Your task to perform on an android device: turn on priority inbox in the gmail app Image 0: 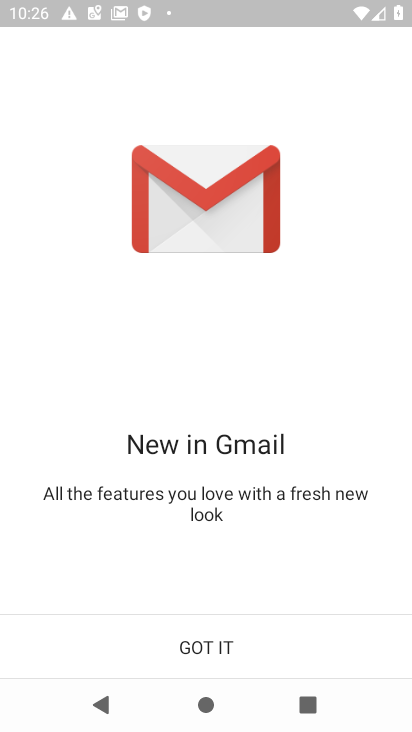
Step 0: press home button
Your task to perform on an android device: turn on priority inbox in the gmail app Image 1: 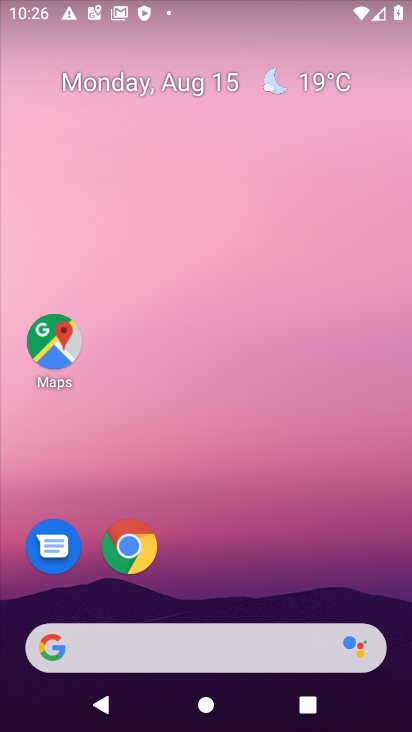
Step 1: drag from (227, 564) to (223, 45)
Your task to perform on an android device: turn on priority inbox in the gmail app Image 2: 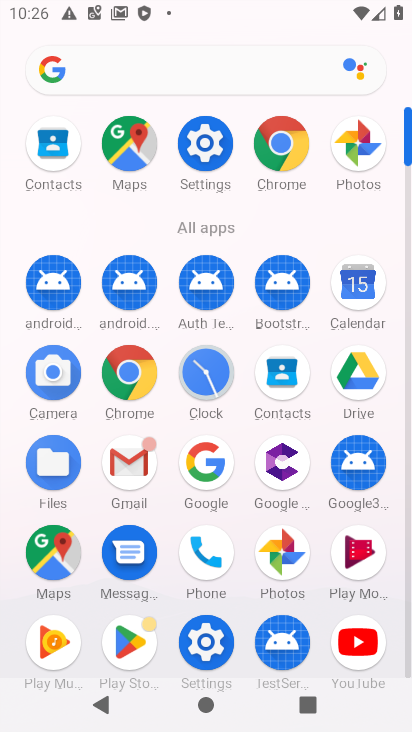
Step 2: click (124, 455)
Your task to perform on an android device: turn on priority inbox in the gmail app Image 3: 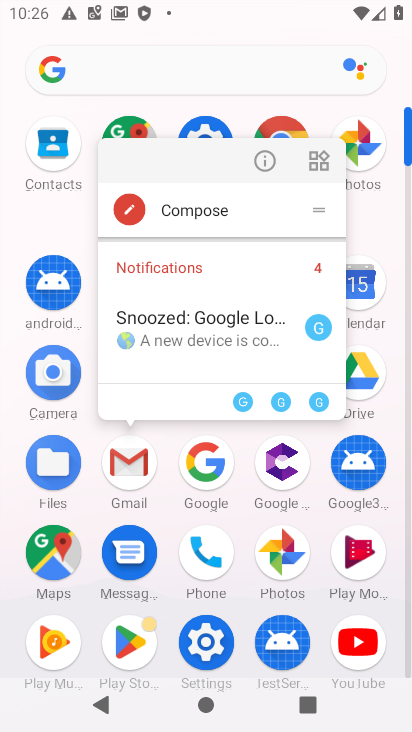
Step 3: click (139, 459)
Your task to perform on an android device: turn on priority inbox in the gmail app Image 4: 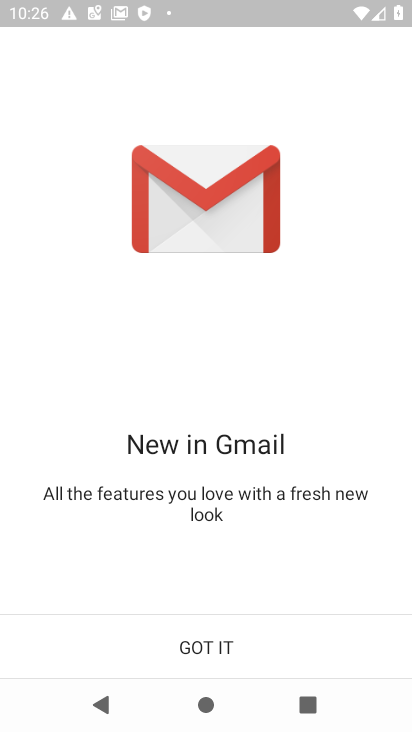
Step 4: click (197, 634)
Your task to perform on an android device: turn on priority inbox in the gmail app Image 5: 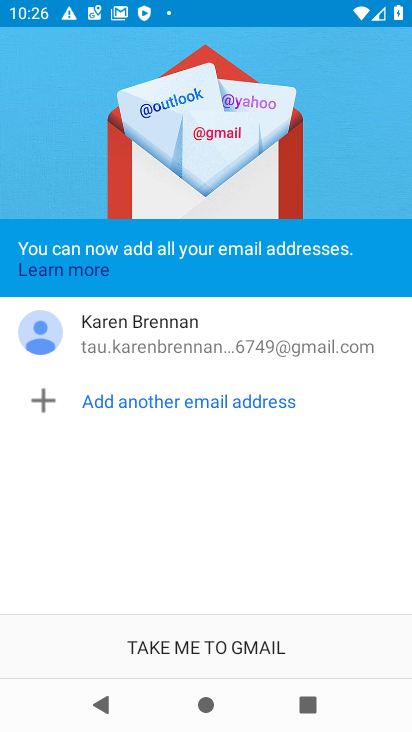
Step 5: click (228, 650)
Your task to perform on an android device: turn on priority inbox in the gmail app Image 6: 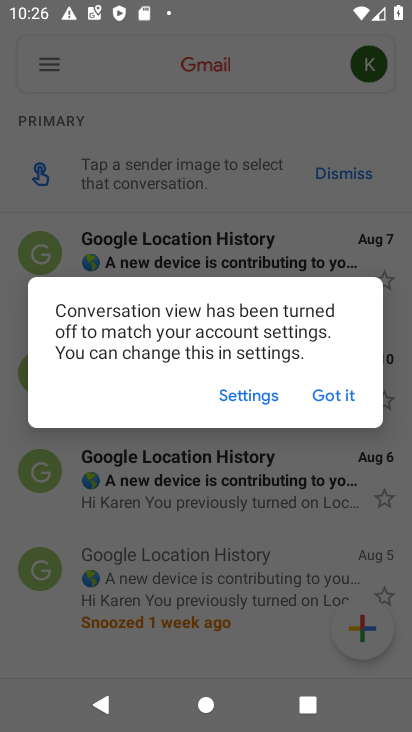
Step 6: click (329, 390)
Your task to perform on an android device: turn on priority inbox in the gmail app Image 7: 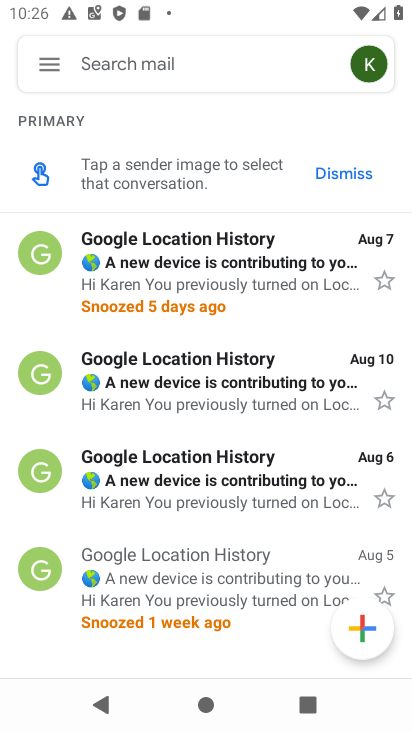
Step 7: click (46, 66)
Your task to perform on an android device: turn on priority inbox in the gmail app Image 8: 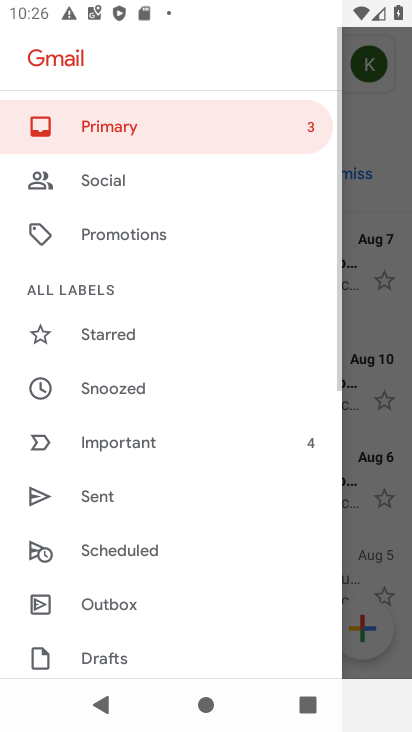
Step 8: drag from (100, 624) to (108, 336)
Your task to perform on an android device: turn on priority inbox in the gmail app Image 9: 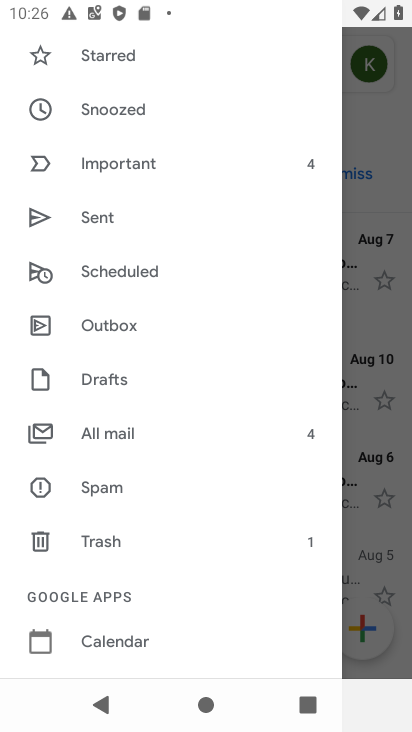
Step 9: drag from (105, 643) to (100, 293)
Your task to perform on an android device: turn on priority inbox in the gmail app Image 10: 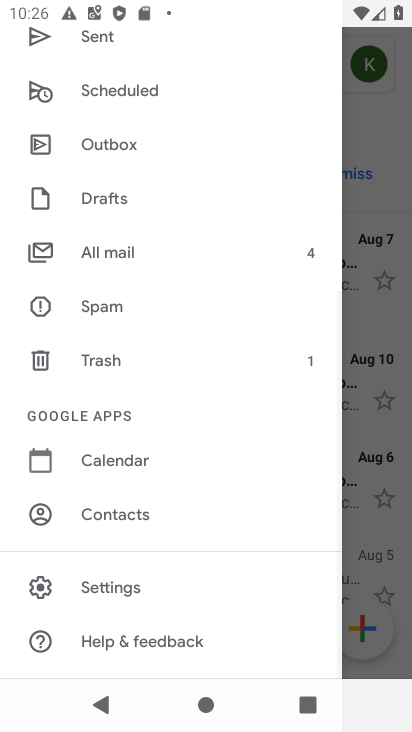
Step 10: click (105, 583)
Your task to perform on an android device: turn on priority inbox in the gmail app Image 11: 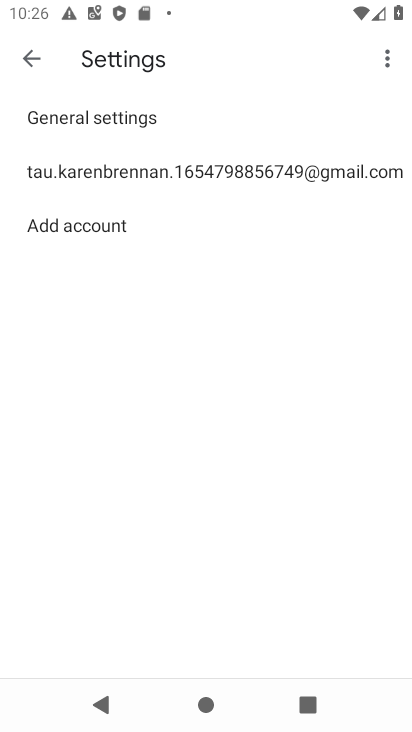
Step 11: click (181, 164)
Your task to perform on an android device: turn on priority inbox in the gmail app Image 12: 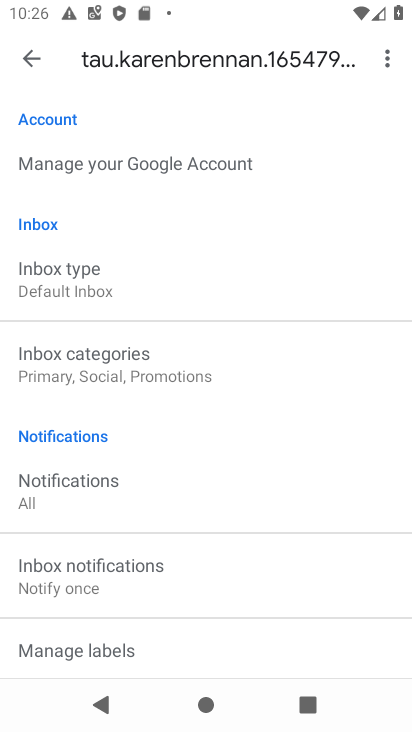
Step 12: click (63, 276)
Your task to perform on an android device: turn on priority inbox in the gmail app Image 13: 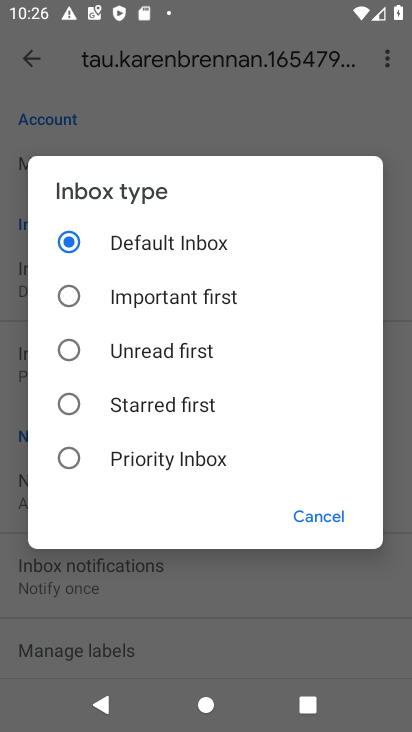
Step 13: click (63, 454)
Your task to perform on an android device: turn on priority inbox in the gmail app Image 14: 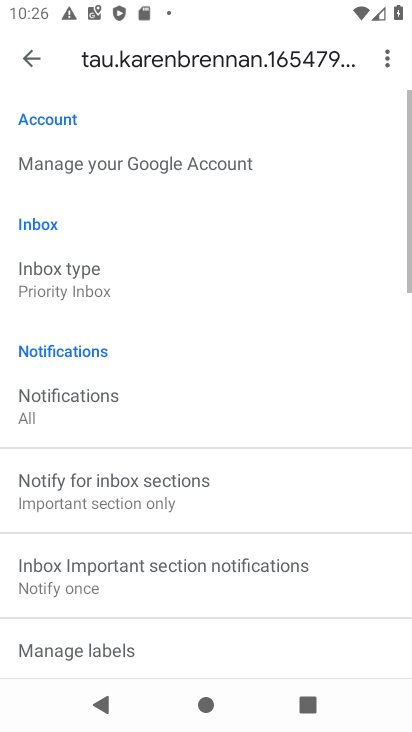
Step 14: task complete